Your task to perform on an android device: uninstall "eBay: The shopping marketplace" Image 0: 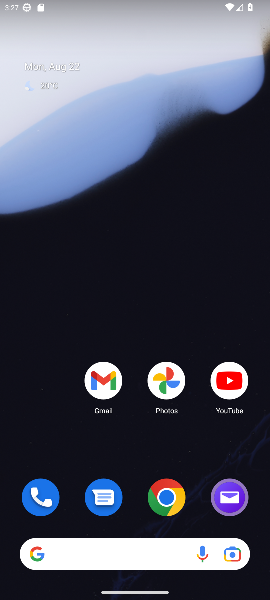
Step 0: click (232, 81)
Your task to perform on an android device: uninstall "eBay: The shopping marketplace" Image 1: 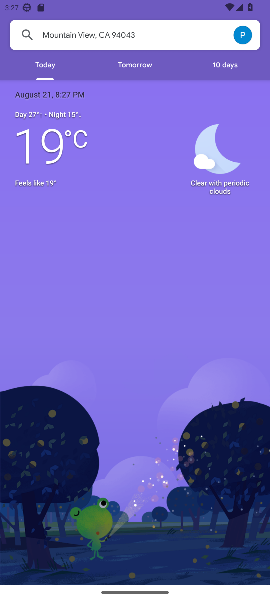
Step 1: press home button
Your task to perform on an android device: uninstall "eBay: The shopping marketplace" Image 2: 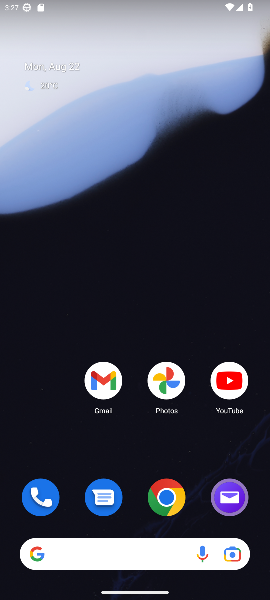
Step 2: drag from (59, 457) to (59, 84)
Your task to perform on an android device: uninstall "eBay: The shopping marketplace" Image 3: 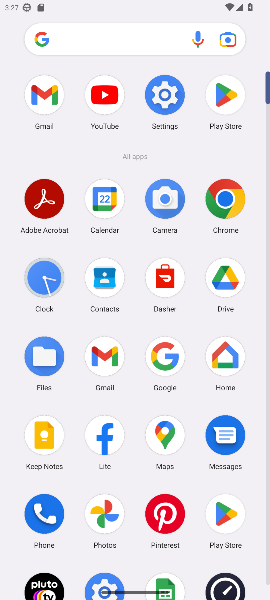
Step 3: click (224, 92)
Your task to perform on an android device: uninstall "eBay: The shopping marketplace" Image 4: 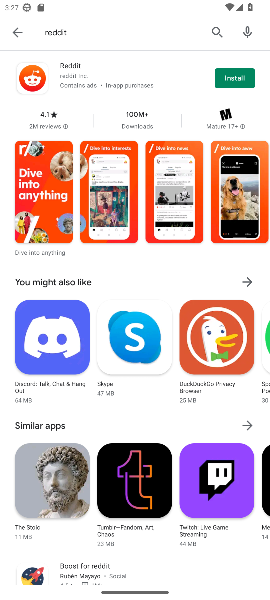
Step 4: press back button
Your task to perform on an android device: uninstall "eBay: The shopping marketplace" Image 5: 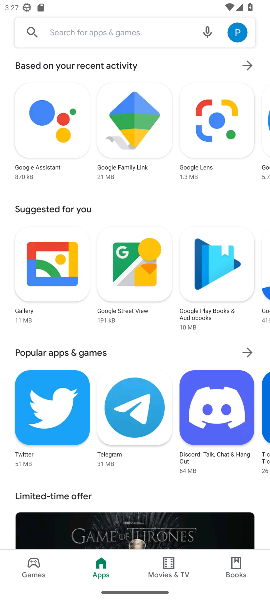
Step 5: click (107, 25)
Your task to perform on an android device: uninstall "eBay: The shopping marketplace" Image 6: 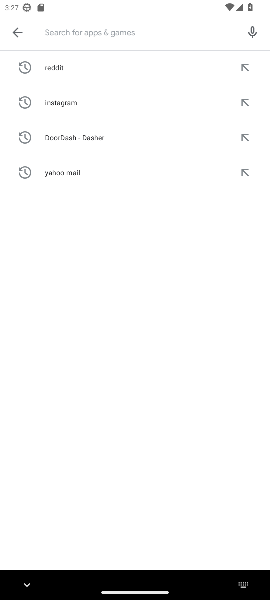
Step 6: type "ebay"
Your task to perform on an android device: uninstall "eBay: The shopping marketplace" Image 7: 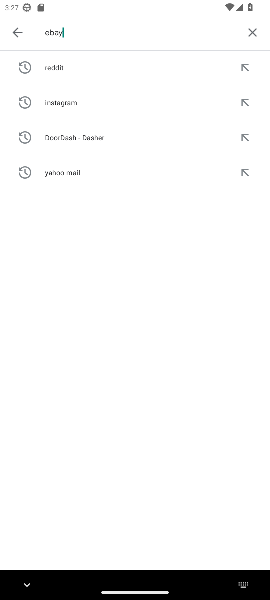
Step 7: press enter
Your task to perform on an android device: uninstall "eBay: The shopping marketplace" Image 8: 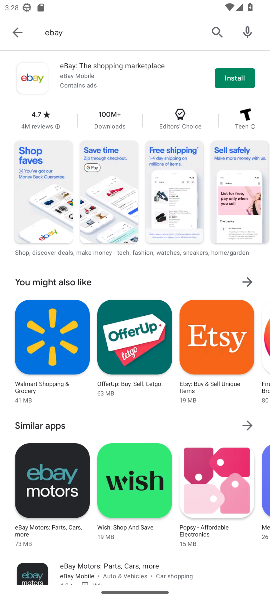
Step 8: task complete